Your task to perform on an android device: turn off priority inbox in the gmail app Image 0: 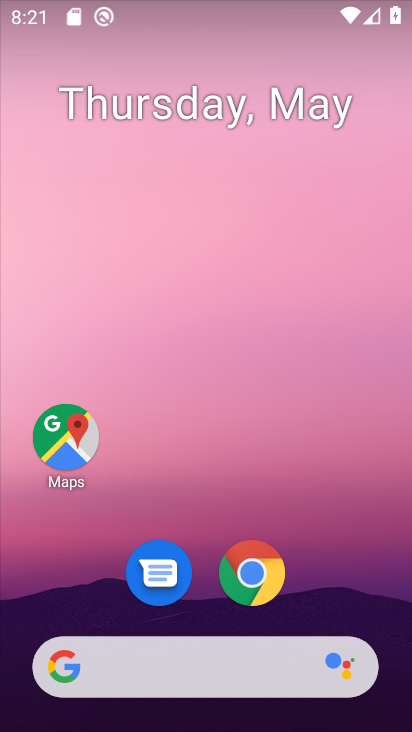
Step 0: drag from (319, 569) to (213, 73)
Your task to perform on an android device: turn off priority inbox in the gmail app Image 1: 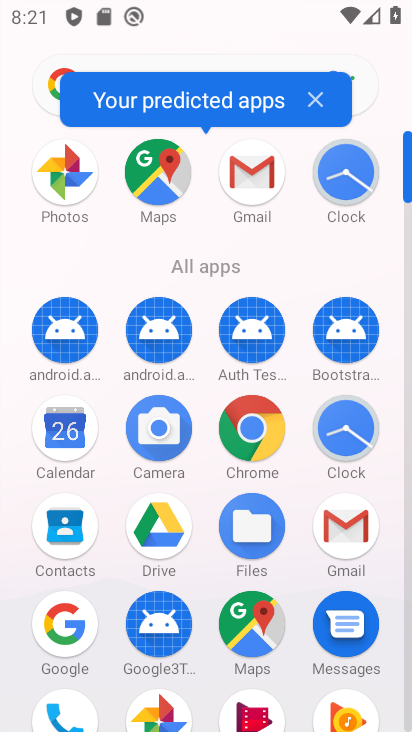
Step 1: drag from (17, 543) to (11, 209)
Your task to perform on an android device: turn off priority inbox in the gmail app Image 2: 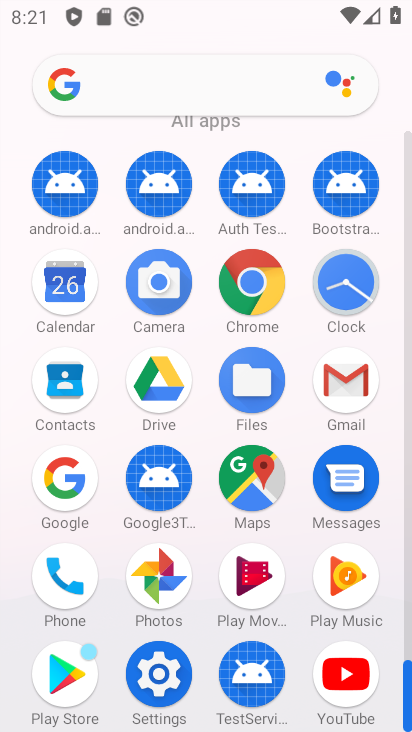
Step 2: click (345, 375)
Your task to perform on an android device: turn off priority inbox in the gmail app Image 3: 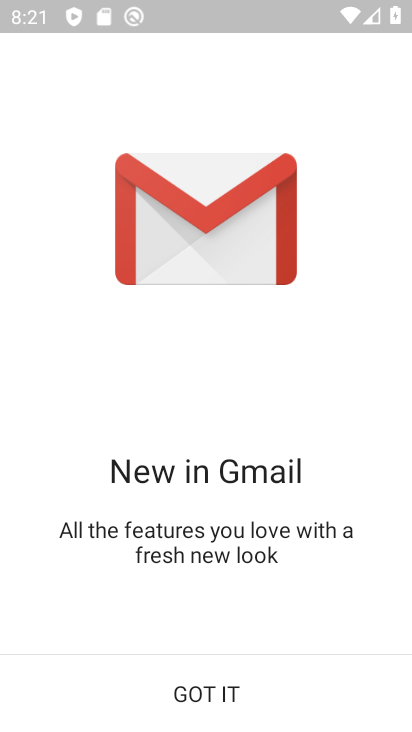
Step 3: click (193, 678)
Your task to perform on an android device: turn off priority inbox in the gmail app Image 4: 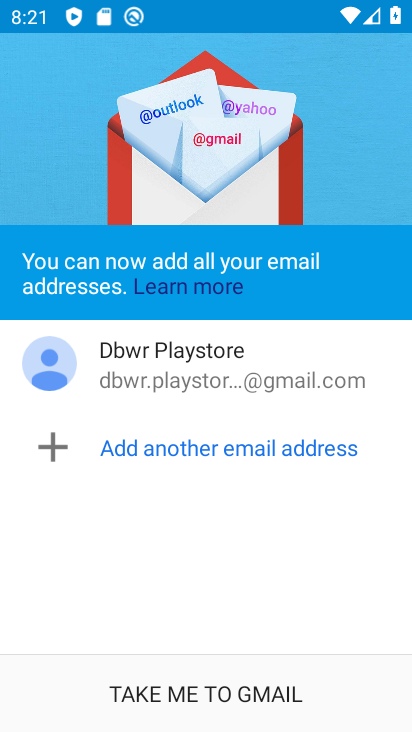
Step 4: click (223, 694)
Your task to perform on an android device: turn off priority inbox in the gmail app Image 5: 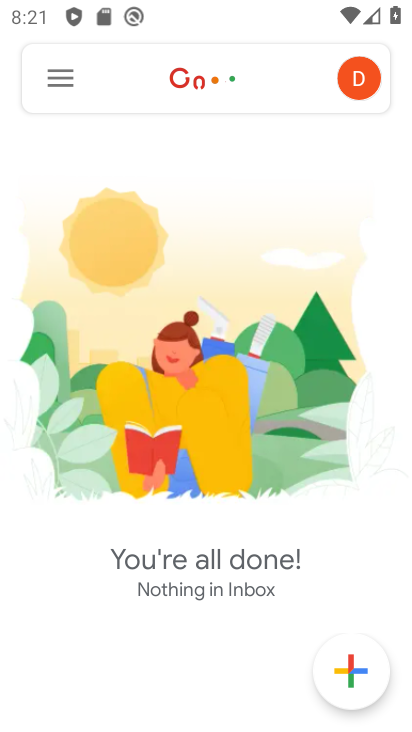
Step 5: click (69, 75)
Your task to perform on an android device: turn off priority inbox in the gmail app Image 6: 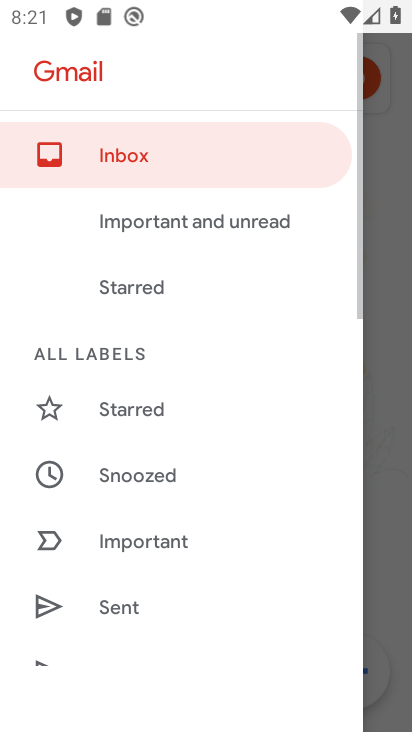
Step 6: drag from (254, 557) to (209, 180)
Your task to perform on an android device: turn off priority inbox in the gmail app Image 7: 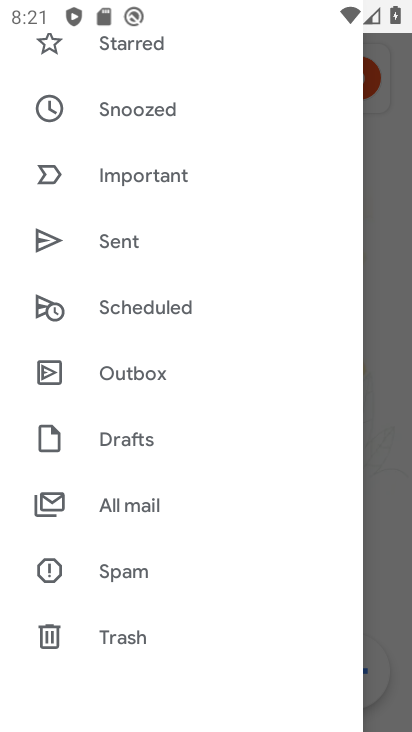
Step 7: drag from (214, 529) to (229, 289)
Your task to perform on an android device: turn off priority inbox in the gmail app Image 8: 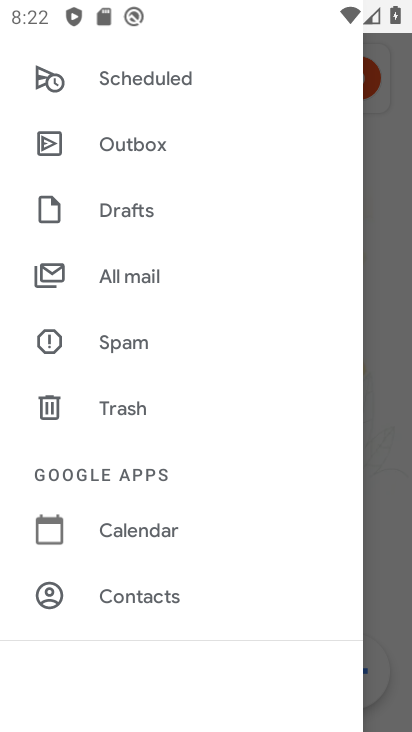
Step 8: drag from (211, 477) to (188, 88)
Your task to perform on an android device: turn off priority inbox in the gmail app Image 9: 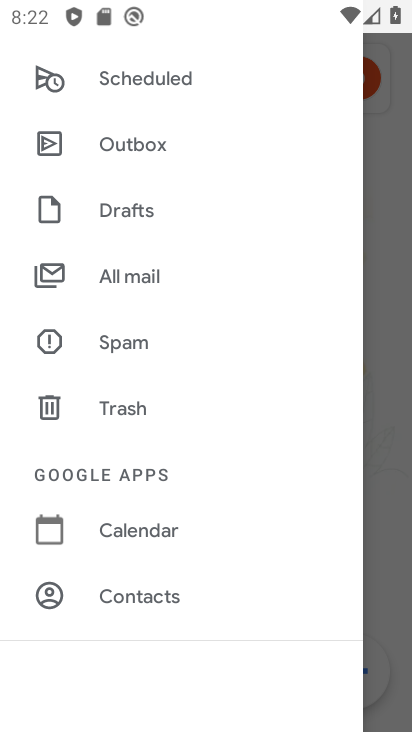
Step 9: drag from (239, 523) to (214, 101)
Your task to perform on an android device: turn off priority inbox in the gmail app Image 10: 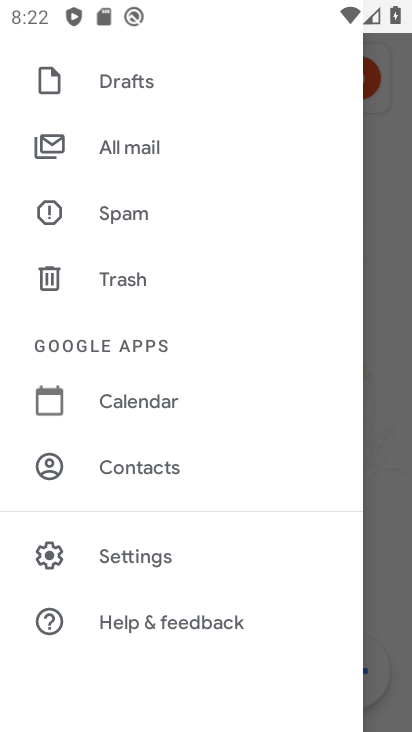
Step 10: click (146, 549)
Your task to perform on an android device: turn off priority inbox in the gmail app Image 11: 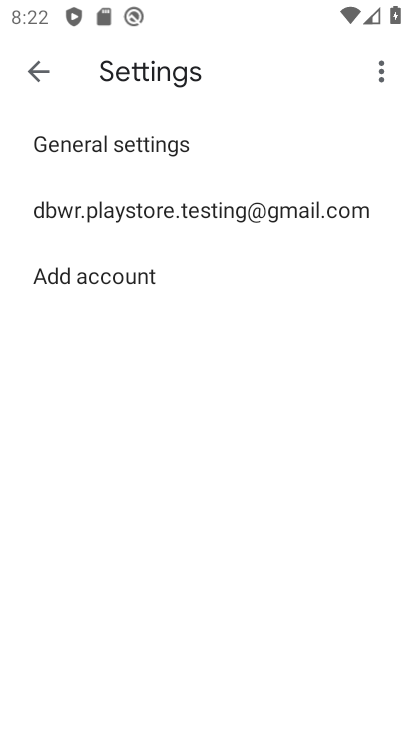
Step 11: click (190, 221)
Your task to perform on an android device: turn off priority inbox in the gmail app Image 12: 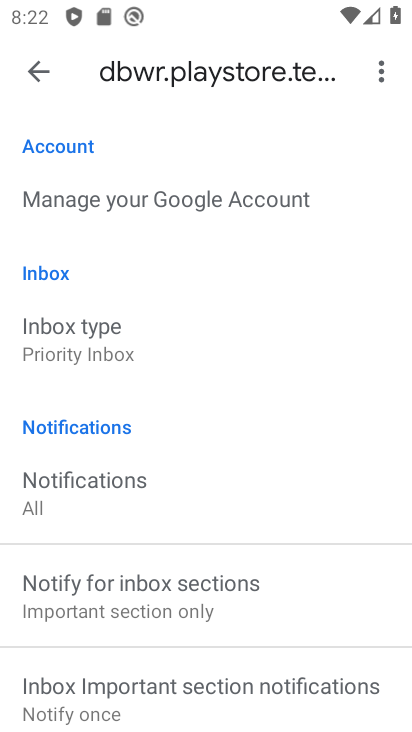
Step 12: drag from (276, 496) to (263, 183)
Your task to perform on an android device: turn off priority inbox in the gmail app Image 13: 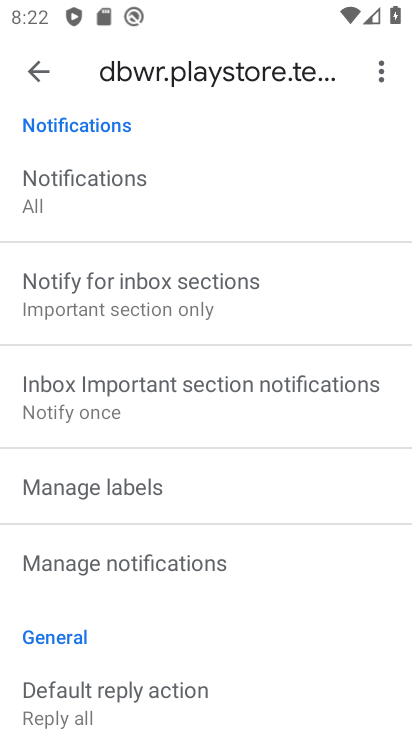
Step 13: click (150, 549)
Your task to perform on an android device: turn off priority inbox in the gmail app Image 14: 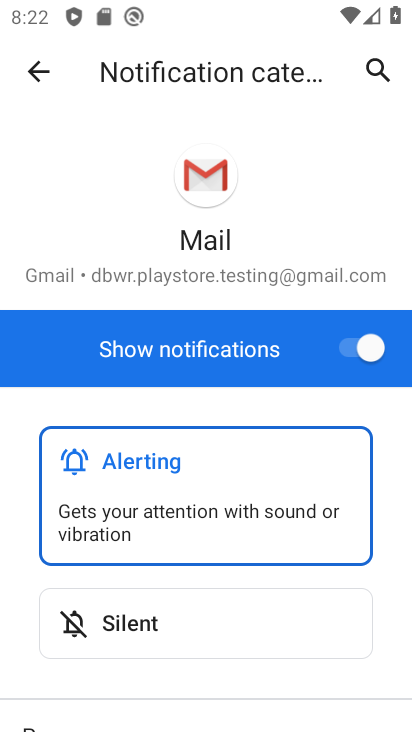
Step 14: click (354, 347)
Your task to perform on an android device: turn off priority inbox in the gmail app Image 15: 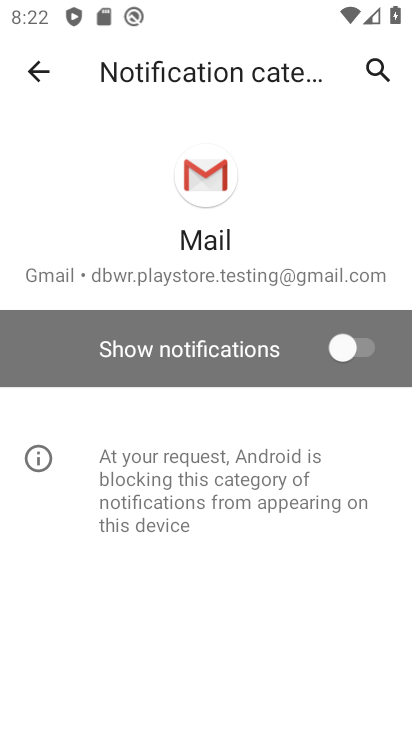
Step 15: task complete